Your task to perform on an android device: Go to Google Image 0: 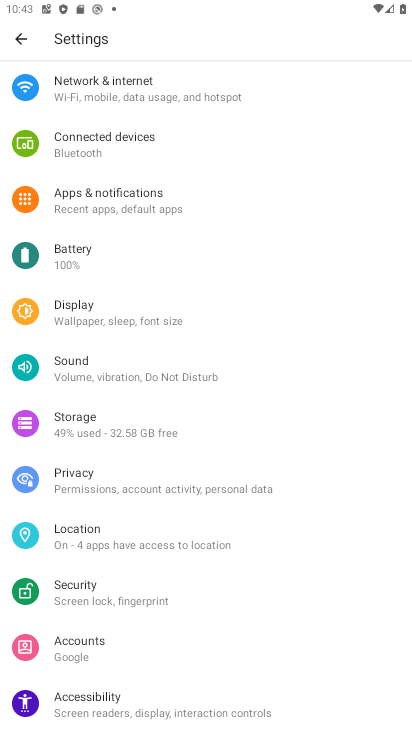
Step 0: press home button
Your task to perform on an android device: Go to Google Image 1: 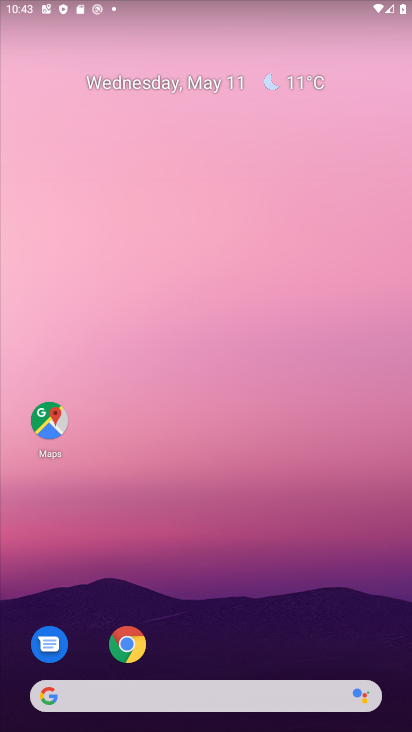
Step 1: drag from (212, 602) to (225, 135)
Your task to perform on an android device: Go to Google Image 2: 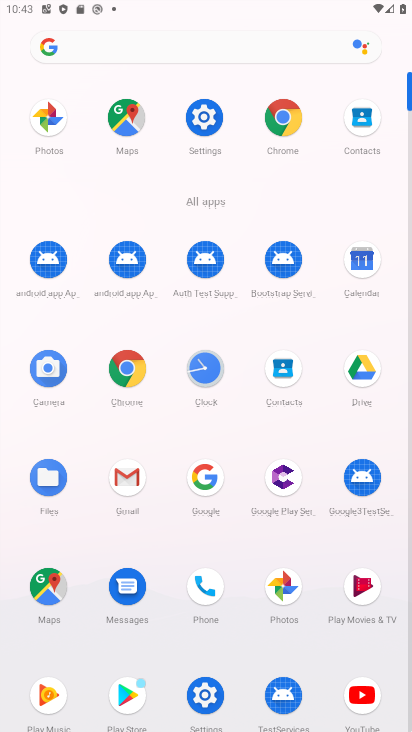
Step 2: click (195, 468)
Your task to perform on an android device: Go to Google Image 3: 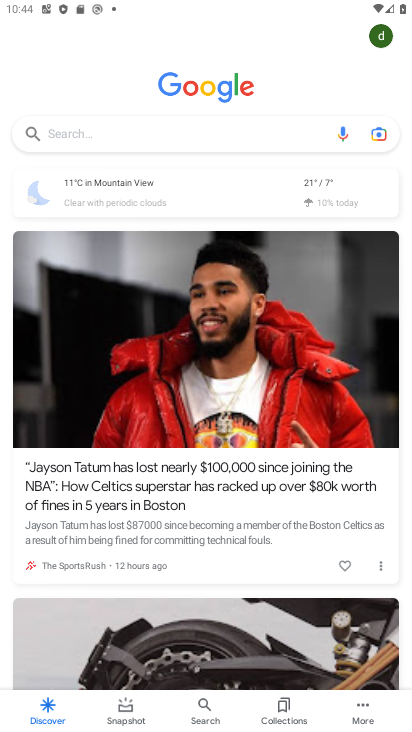
Step 3: task complete